Your task to perform on an android device: delete location history Image 0: 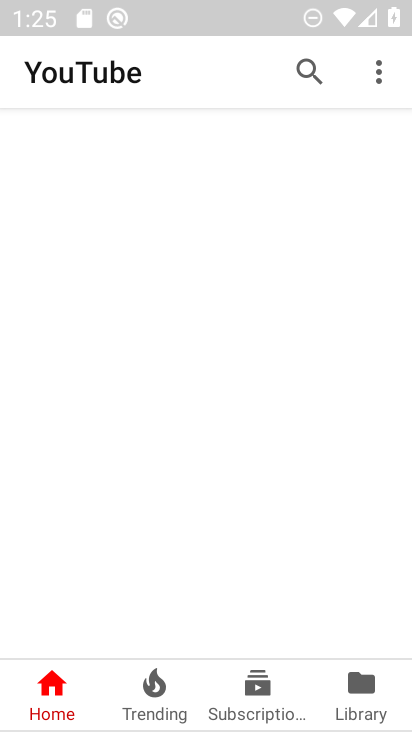
Step 0: click (83, 213)
Your task to perform on an android device: delete location history Image 1: 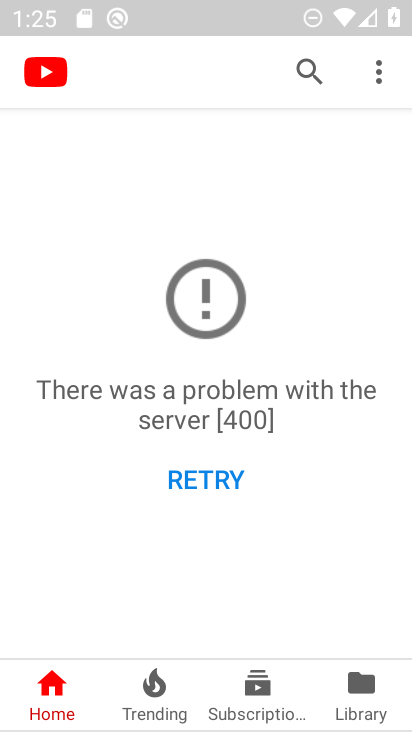
Step 1: press home button
Your task to perform on an android device: delete location history Image 2: 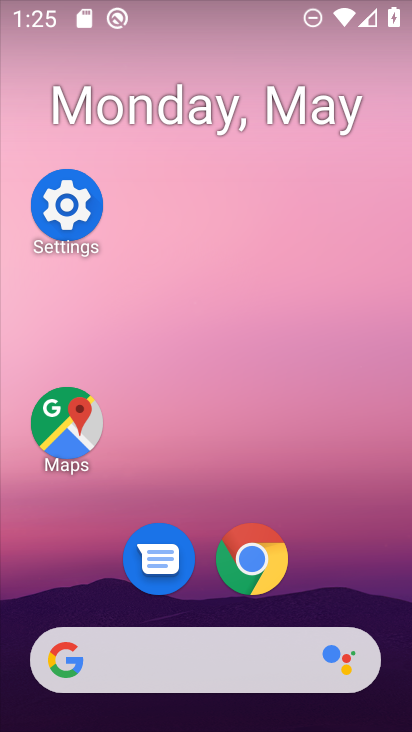
Step 2: click (89, 196)
Your task to perform on an android device: delete location history Image 3: 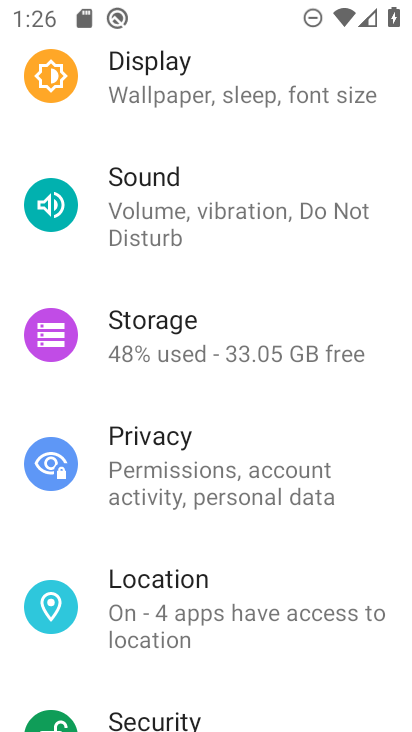
Step 3: click (214, 589)
Your task to perform on an android device: delete location history Image 4: 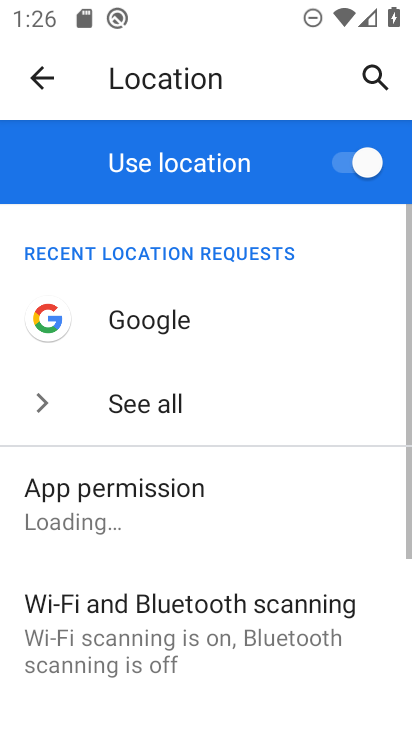
Step 4: drag from (214, 589) to (211, 112)
Your task to perform on an android device: delete location history Image 5: 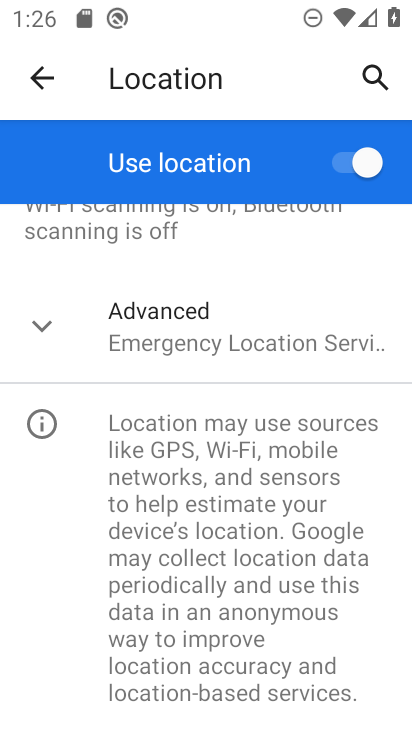
Step 5: click (222, 315)
Your task to perform on an android device: delete location history Image 6: 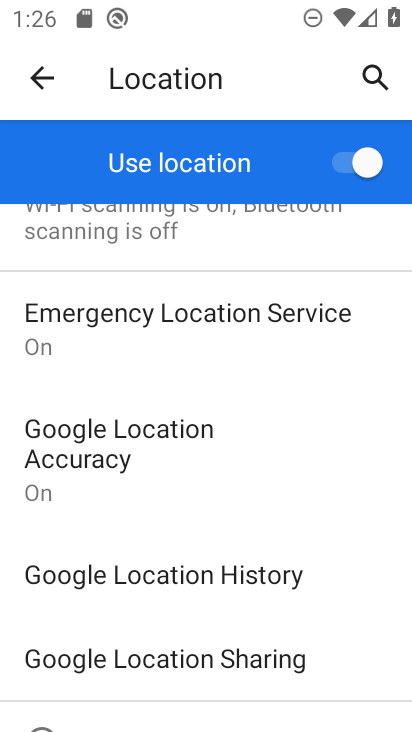
Step 6: click (249, 584)
Your task to perform on an android device: delete location history Image 7: 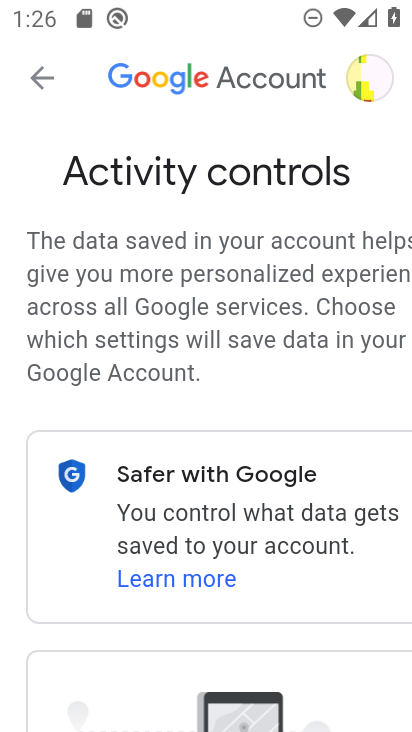
Step 7: drag from (343, 638) to (302, 190)
Your task to perform on an android device: delete location history Image 8: 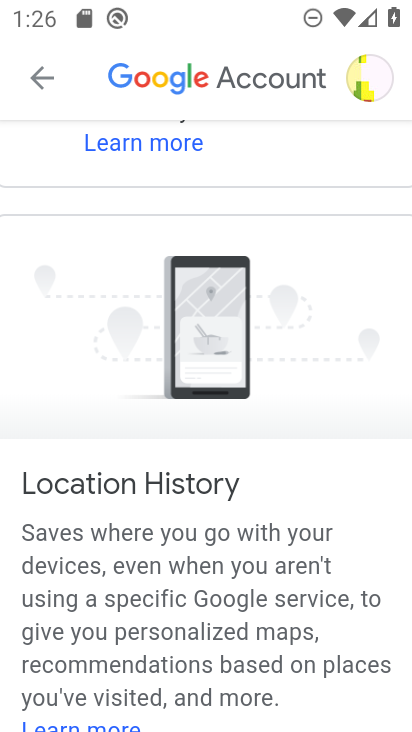
Step 8: drag from (323, 552) to (318, 152)
Your task to perform on an android device: delete location history Image 9: 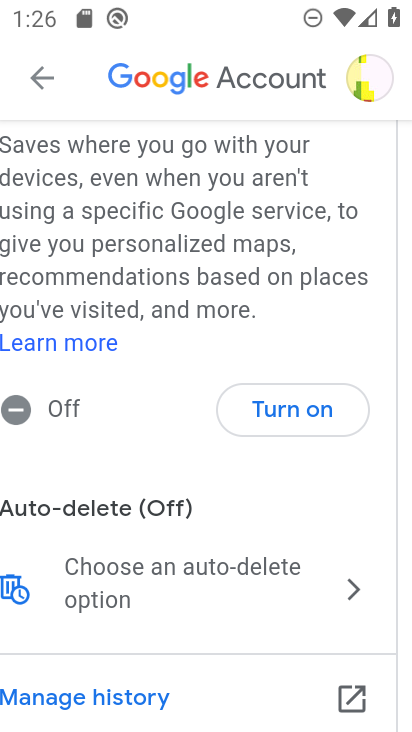
Step 9: click (241, 600)
Your task to perform on an android device: delete location history Image 10: 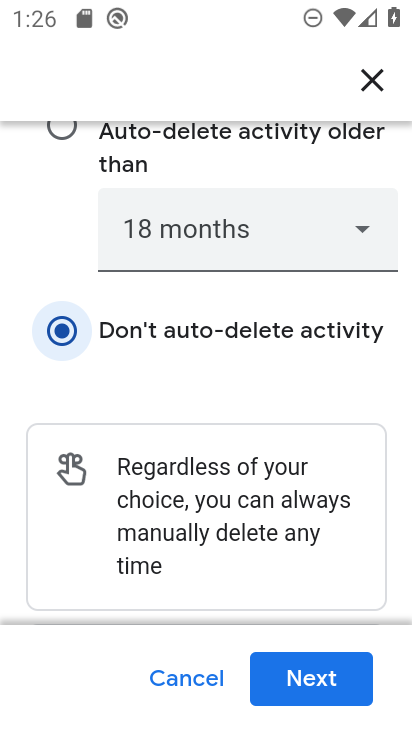
Step 10: drag from (290, 613) to (312, 290)
Your task to perform on an android device: delete location history Image 11: 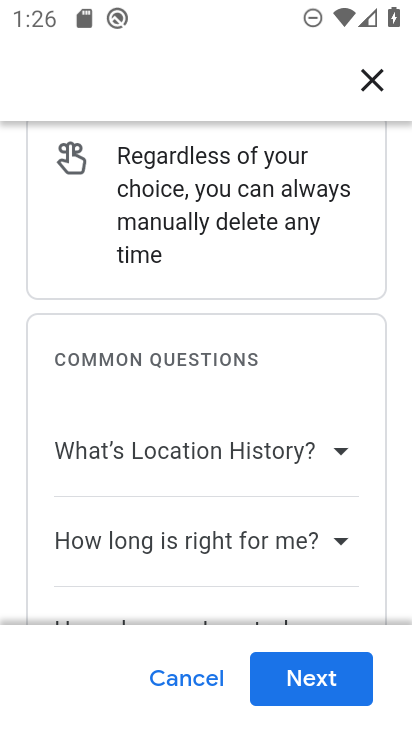
Step 11: click (315, 705)
Your task to perform on an android device: delete location history Image 12: 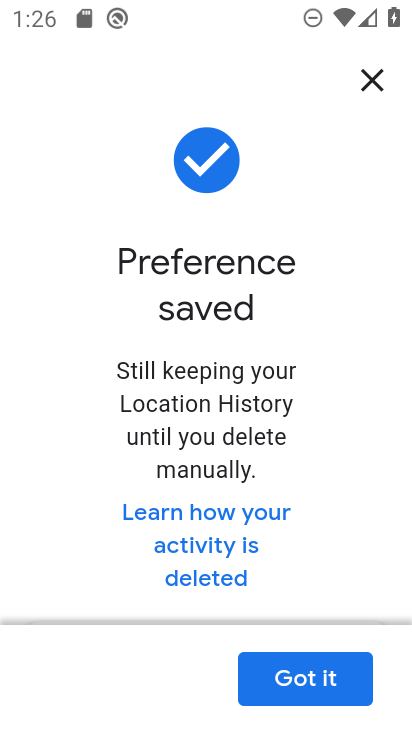
Step 12: click (312, 665)
Your task to perform on an android device: delete location history Image 13: 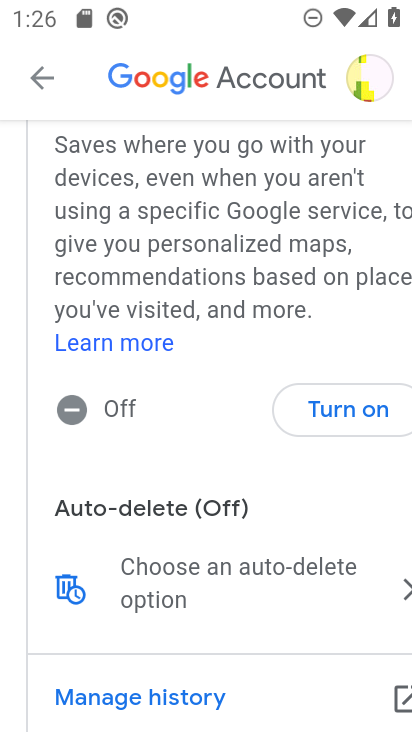
Step 13: task complete